Your task to perform on an android device: visit the assistant section in the google photos Image 0: 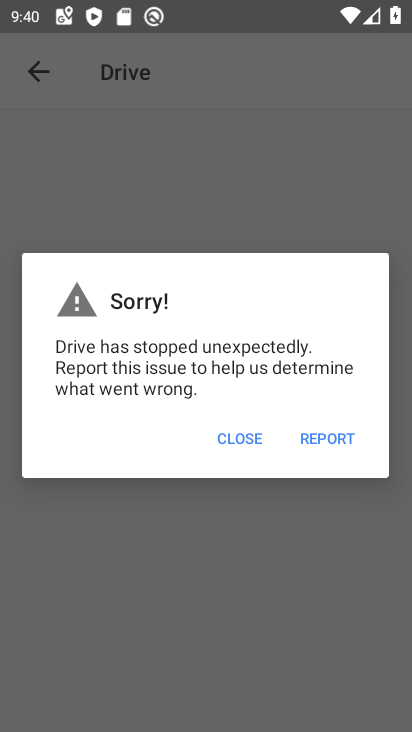
Step 0: press home button
Your task to perform on an android device: visit the assistant section in the google photos Image 1: 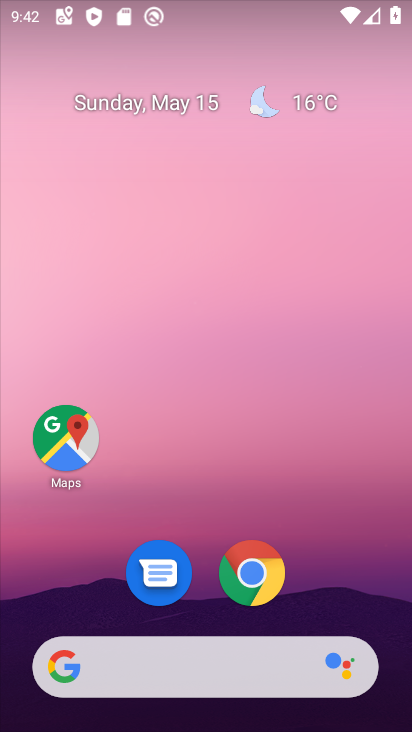
Step 1: drag from (333, 505) to (350, 25)
Your task to perform on an android device: visit the assistant section in the google photos Image 2: 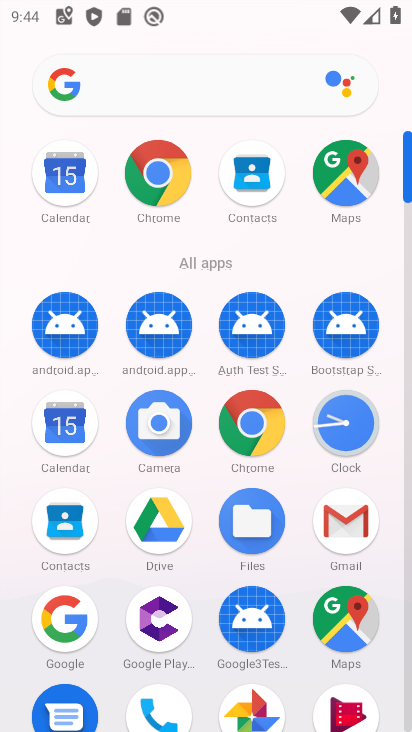
Step 2: drag from (312, 667) to (352, 394)
Your task to perform on an android device: visit the assistant section in the google photos Image 3: 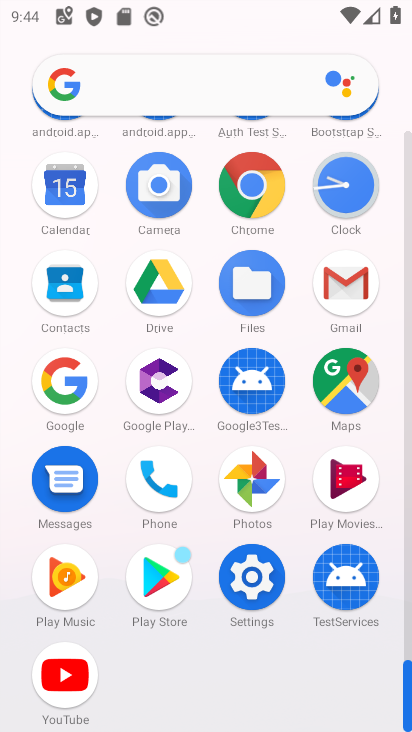
Step 3: click (276, 502)
Your task to perform on an android device: visit the assistant section in the google photos Image 4: 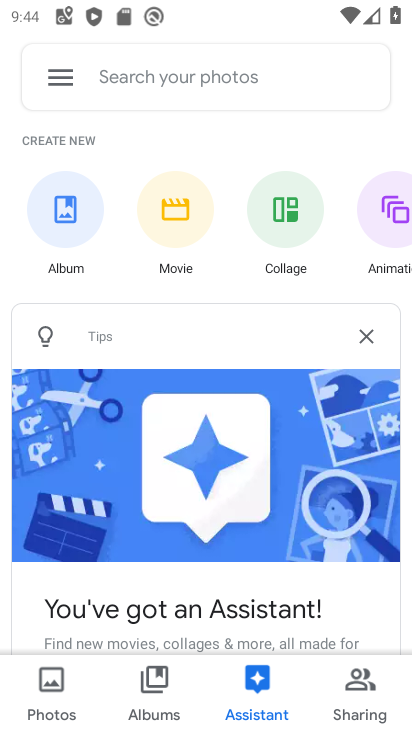
Step 4: task complete